Your task to perform on an android device: Go to Google Image 0: 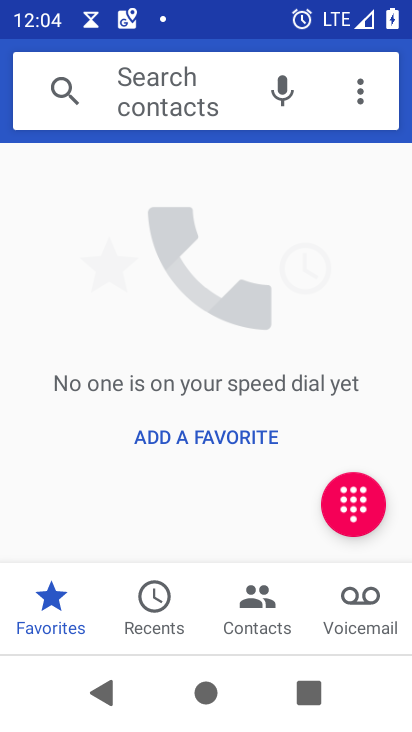
Step 0: press home button
Your task to perform on an android device: Go to Google Image 1: 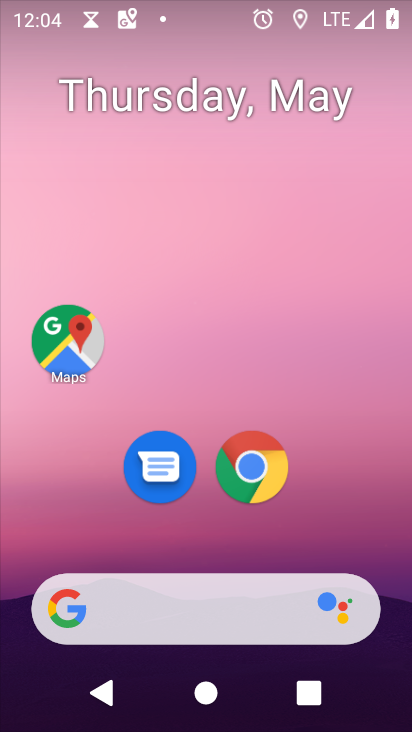
Step 1: drag from (253, 631) to (390, 336)
Your task to perform on an android device: Go to Google Image 2: 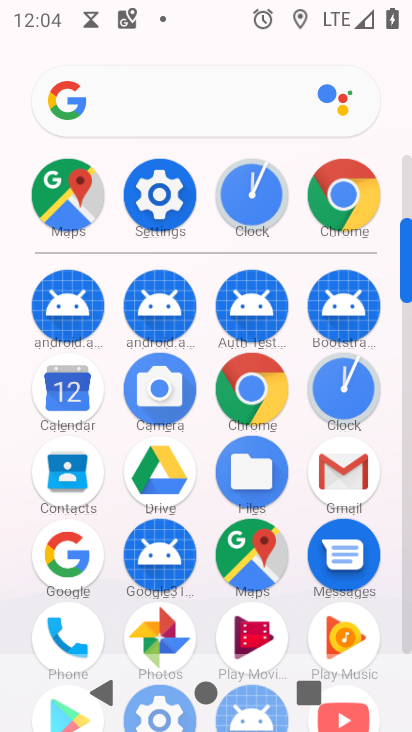
Step 2: click (74, 552)
Your task to perform on an android device: Go to Google Image 3: 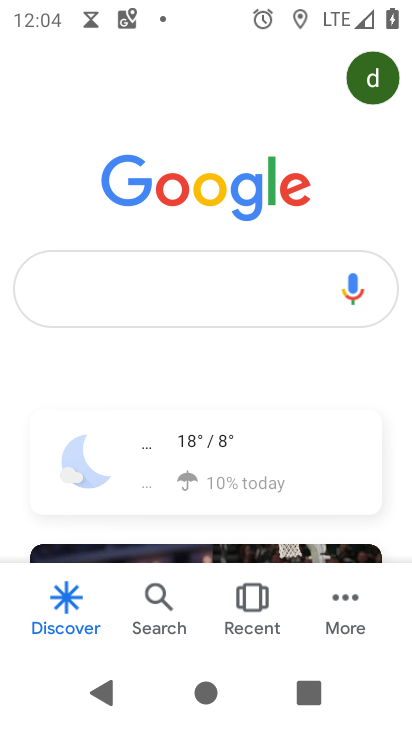
Step 3: task complete